Your task to perform on an android device: turn on data saver in the chrome app Image 0: 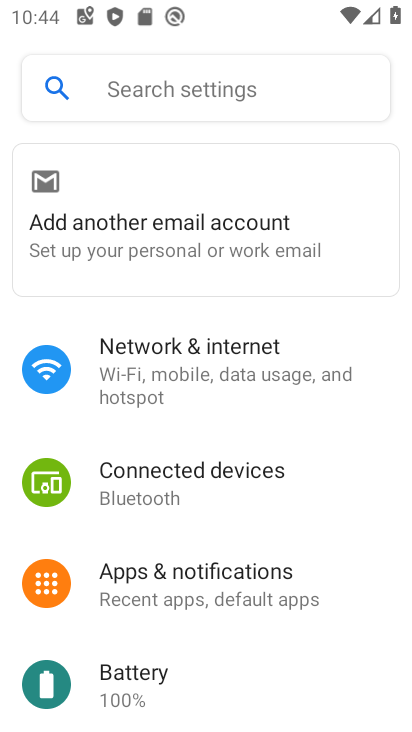
Step 0: press home button
Your task to perform on an android device: turn on data saver in the chrome app Image 1: 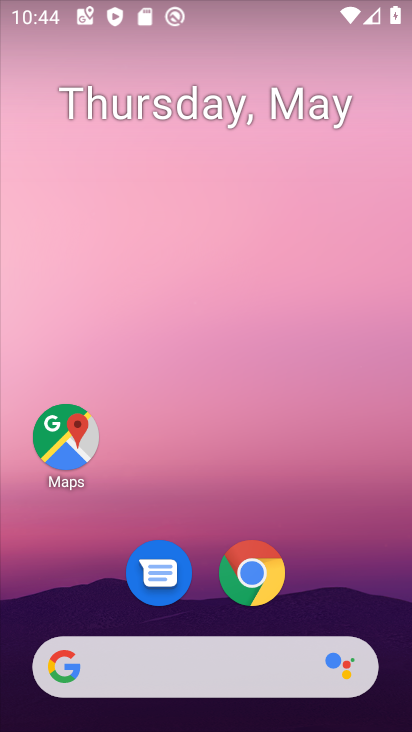
Step 1: click (275, 558)
Your task to perform on an android device: turn on data saver in the chrome app Image 2: 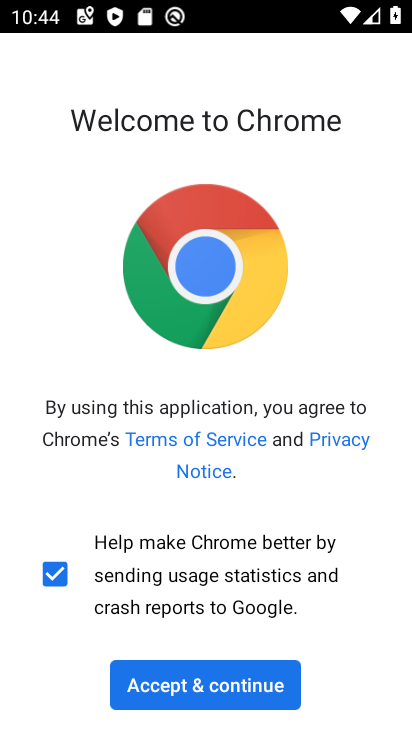
Step 2: click (172, 680)
Your task to perform on an android device: turn on data saver in the chrome app Image 3: 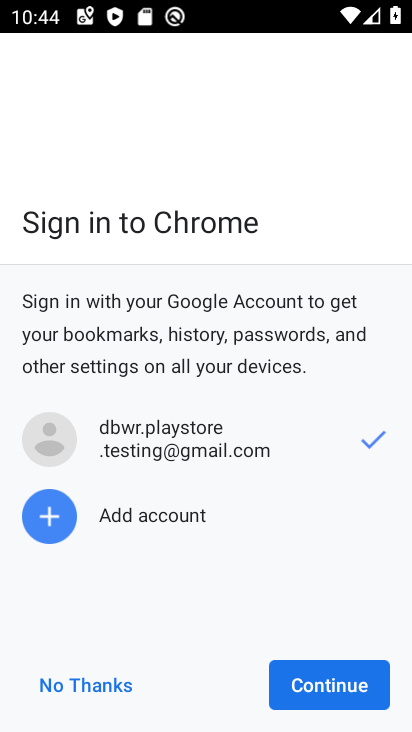
Step 3: click (363, 689)
Your task to perform on an android device: turn on data saver in the chrome app Image 4: 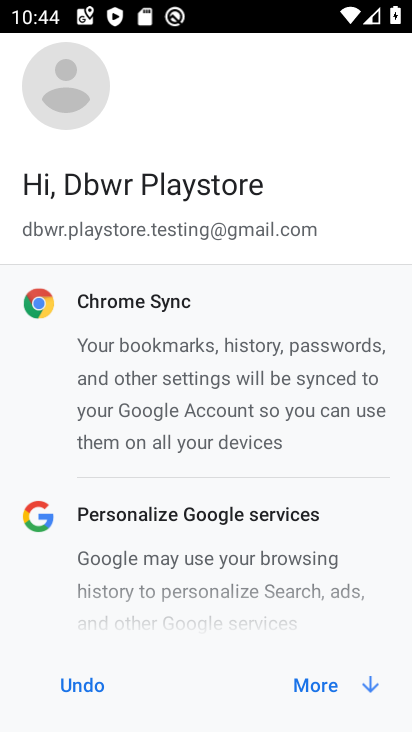
Step 4: click (338, 687)
Your task to perform on an android device: turn on data saver in the chrome app Image 5: 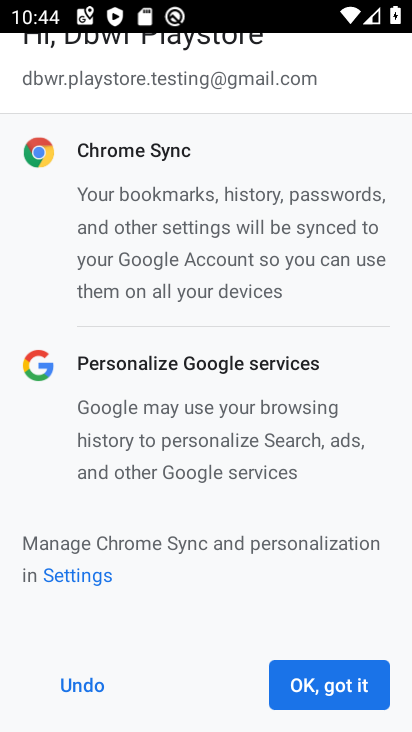
Step 5: click (323, 687)
Your task to perform on an android device: turn on data saver in the chrome app Image 6: 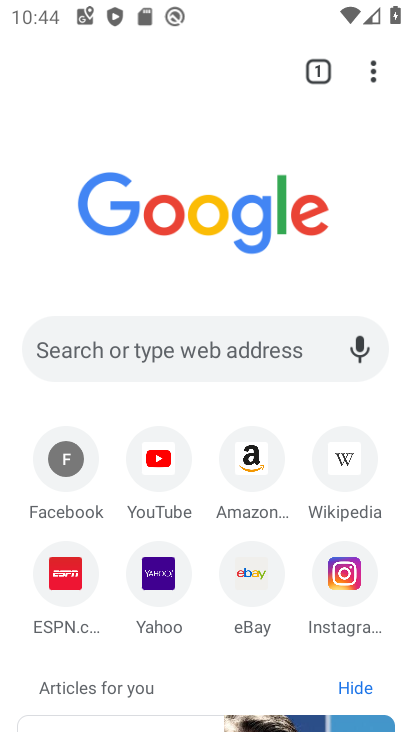
Step 6: drag from (375, 63) to (168, 592)
Your task to perform on an android device: turn on data saver in the chrome app Image 7: 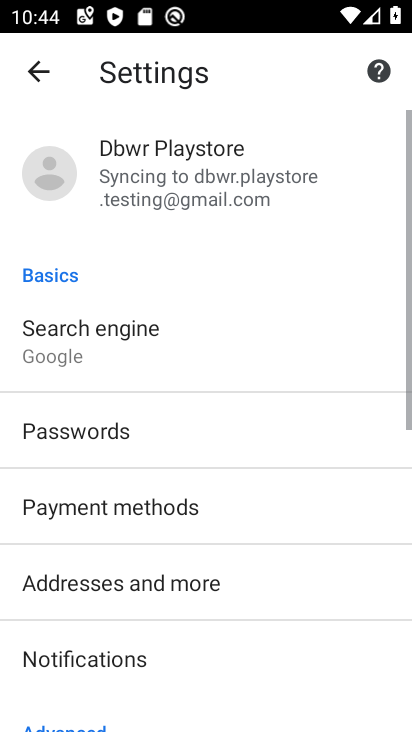
Step 7: drag from (91, 613) to (237, 45)
Your task to perform on an android device: turn on data saver in the chrome app Image 8: 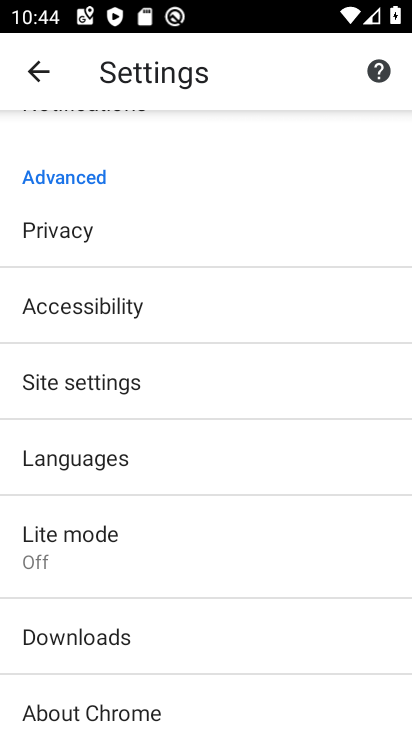
Step 8: click (67, 557)
Your task to perform on an android device: turn on data saver in the chrome app Image 9: 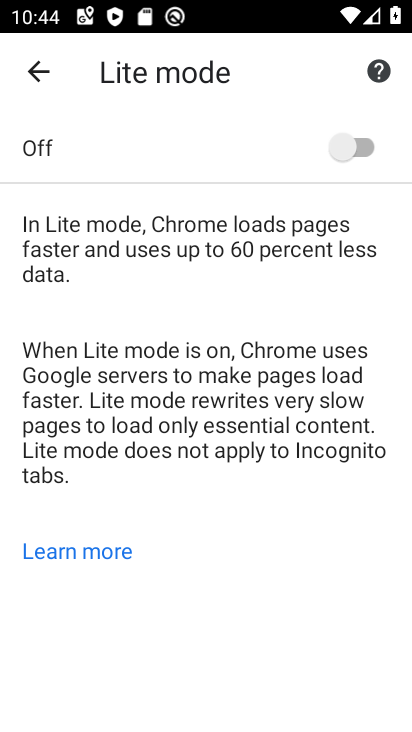
Step 9: click (357, 150)
Your task to perform on an android device: turn on data saver in the chrome app Image 10: 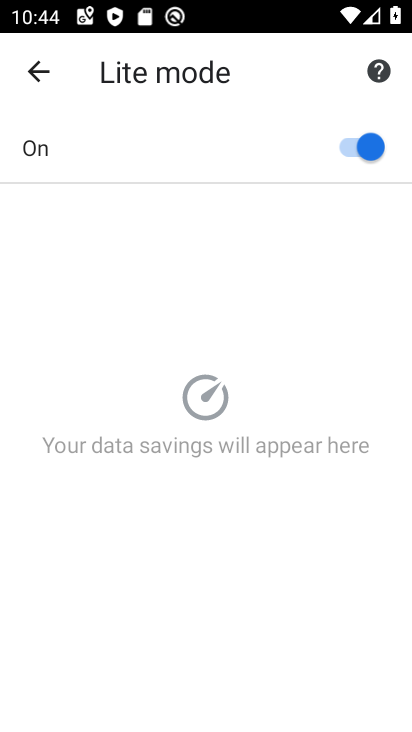
Step 10: task complete